Your task to perform on an android device: check storage Image 0: 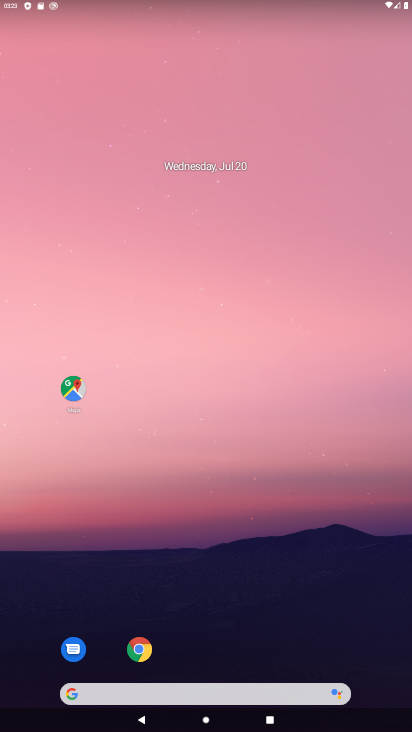
Step 0: drag from (219, 595) to (219, 193)
Your task to perform on an android device: check storage Image 1: 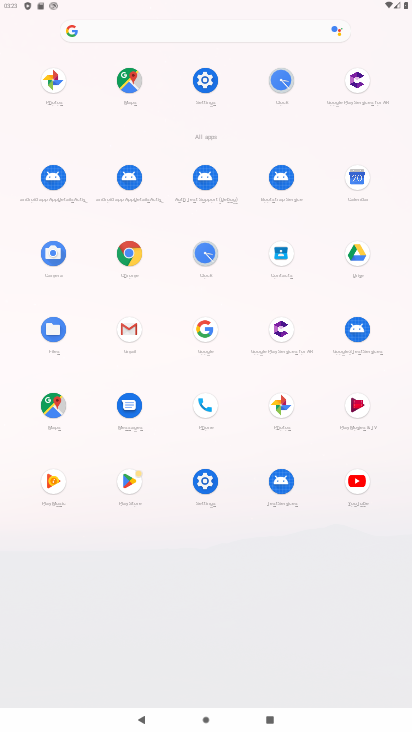
Step 1: click (213, 88)
Your task to perform on an android device: check storage Image 2: 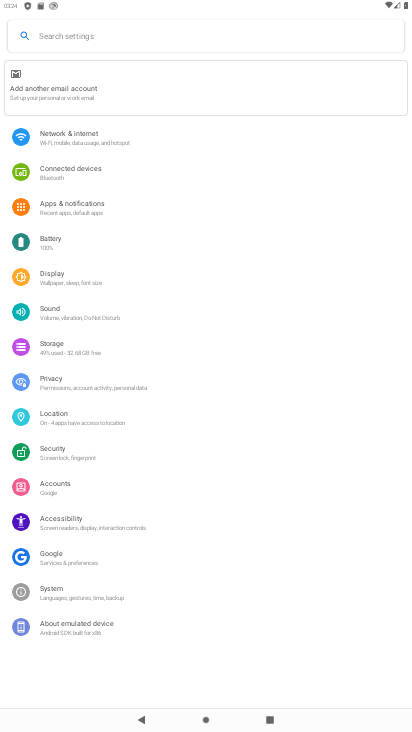
Step 2: click (65, 353)
Your task to perform on an android device: check storage Image 3: 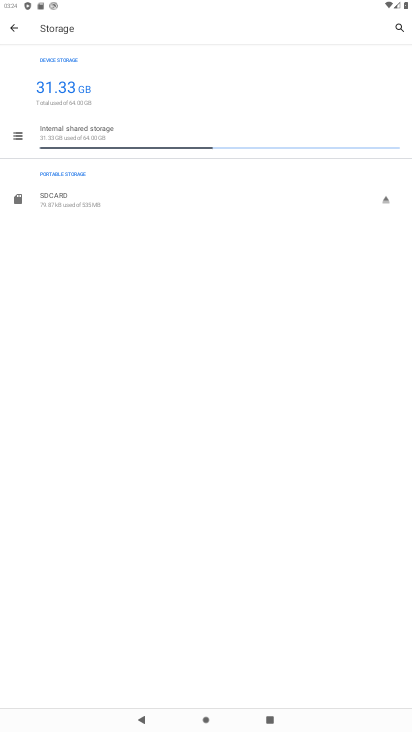
Step 3: click (112, 151)
Your task to perform on an android device: check storage Image 4: 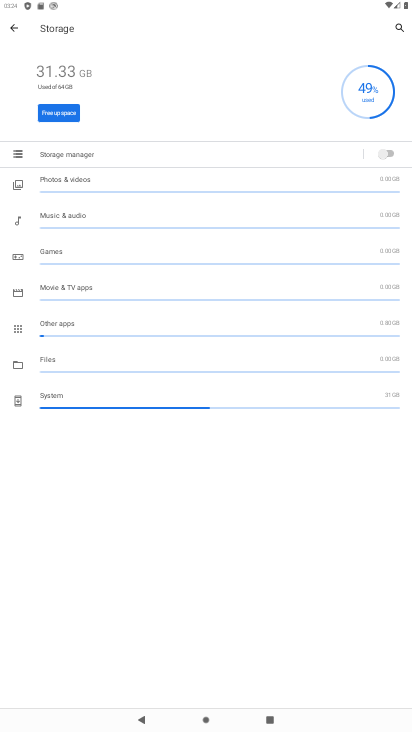
Step 4: task complete